Your task to perform on an android device: turn notification dots on Image 0: 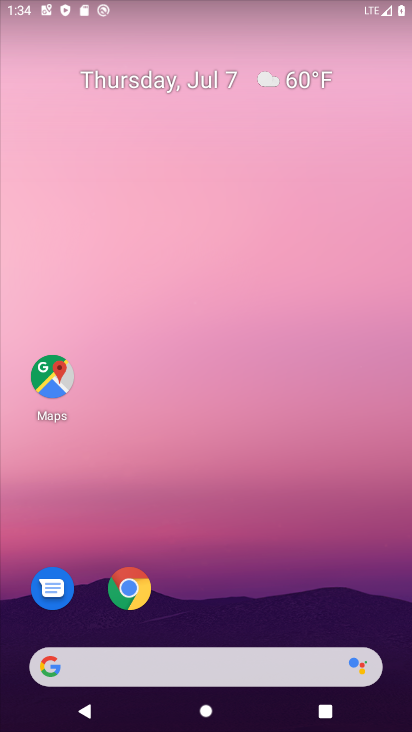
Step 0: drag from (229, 643) to (229, 293)
Your task to perform on an android device: turn notification dots on Image 1: 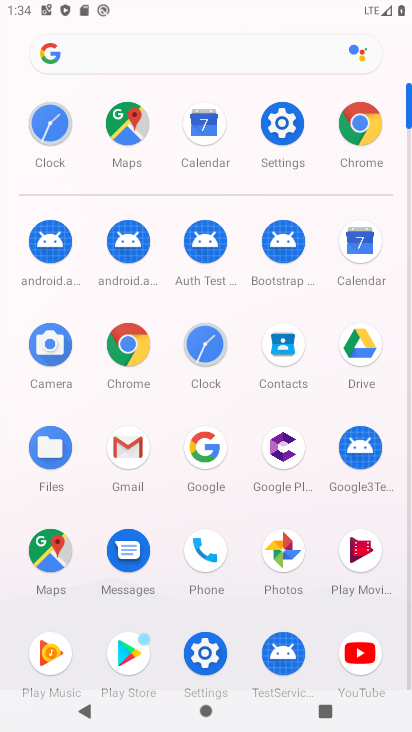
Step 1: click (281, 122)
Your task to perform on an android device: turn notification dots on Image 2: 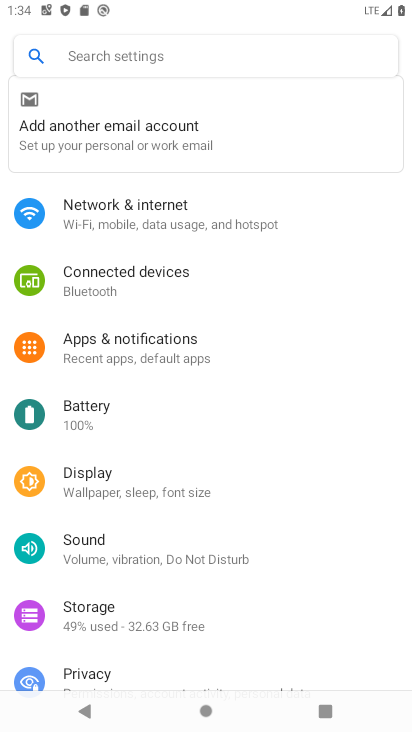
Step 2: click (111, 52)
Your task to perform on an android device: turn notification dots on Image 3: 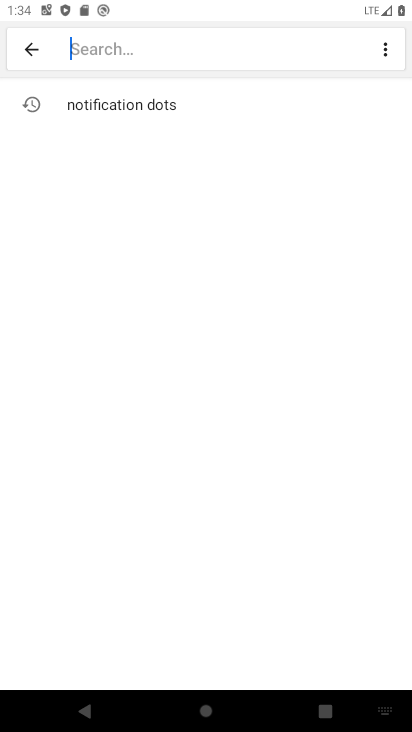
Step 3: type "notification dots  "
Your task to perform on an android device: turn notification dots on Image 4: 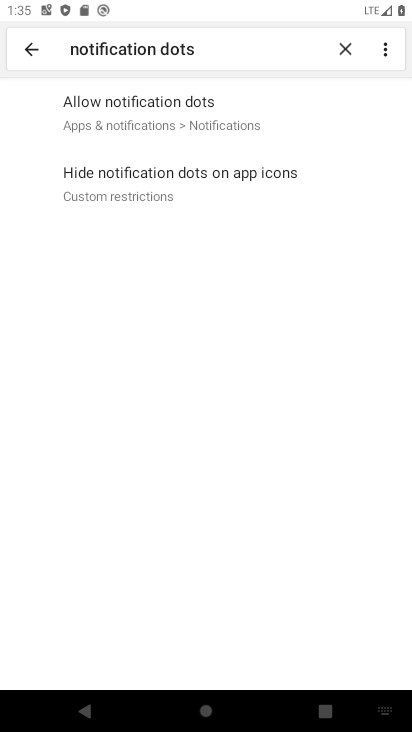
Step 4: click (237, 91)
Your task to perform on an android device: turn notification dots on Image 5: 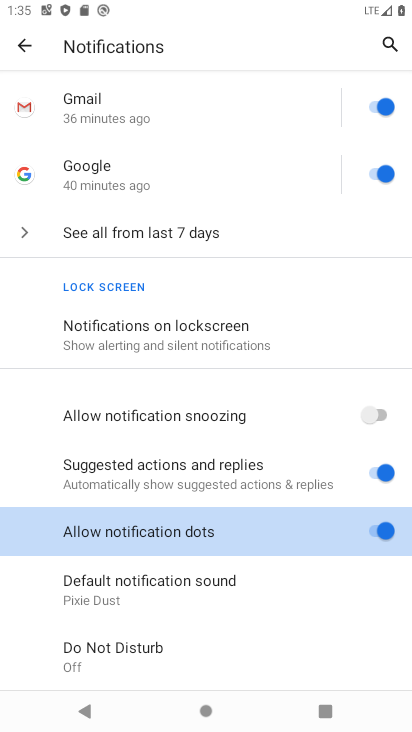
Step 5: click (252, 522)
Your task to perform on an android device: turn notification dots on Image 6: 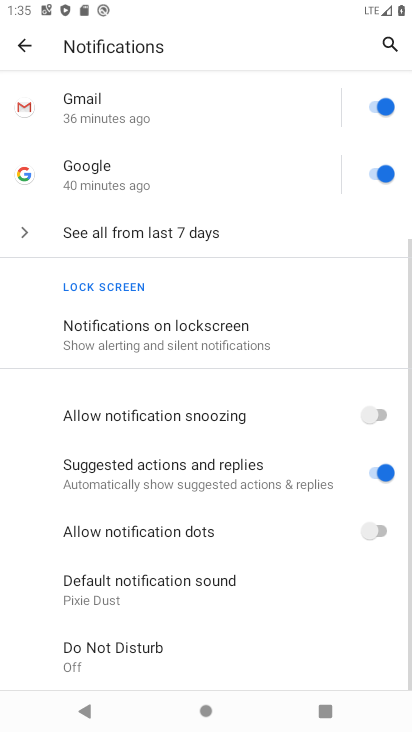
Step 6: click (384, 531)
Your task to perform on an android device: turn notification dots on Image 7: 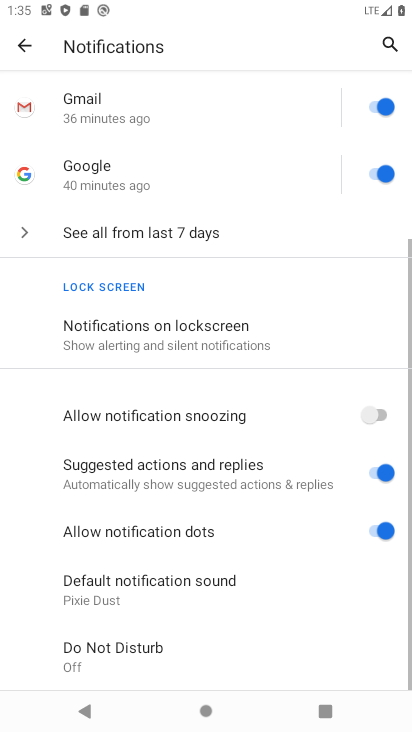
Step 7: task complete